Your task to perform on an android device: Is it going to rain today? Image 0: 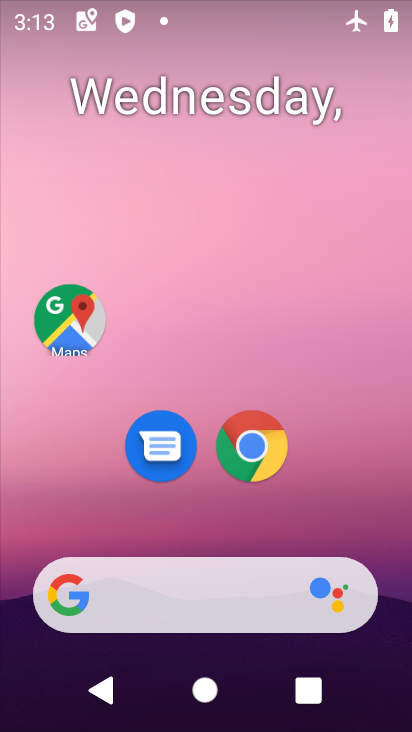
Step 0: drag from (198, 519) to (196, 127)
Your task to perform on an android device: Is it going to rain today? Image 1: 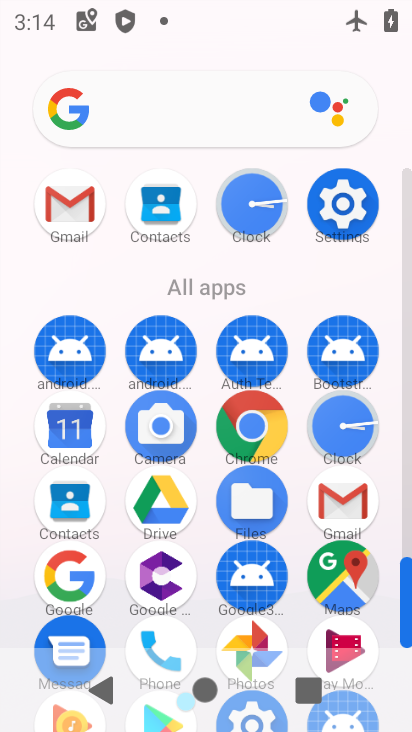
Step 1: drag from (203, 538) to (203, 243)
Your task to perform on an android device: Is it going to rain today? Image 2: 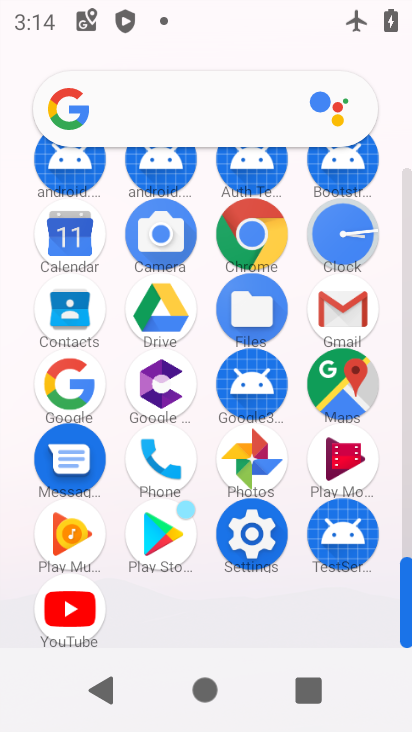
Step 2: click (75, 383)
Your task to perform on an android device: Is it going to rain today? Image 3: 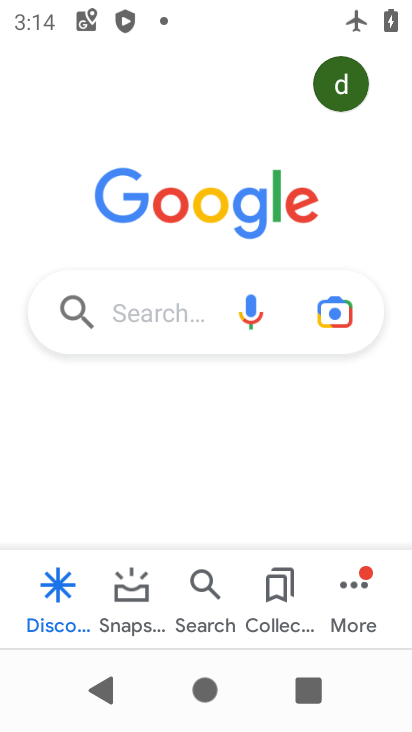
Step 3: click (147, 307)
Your task to perform on an android device: Is it going to rain today? Image 4: 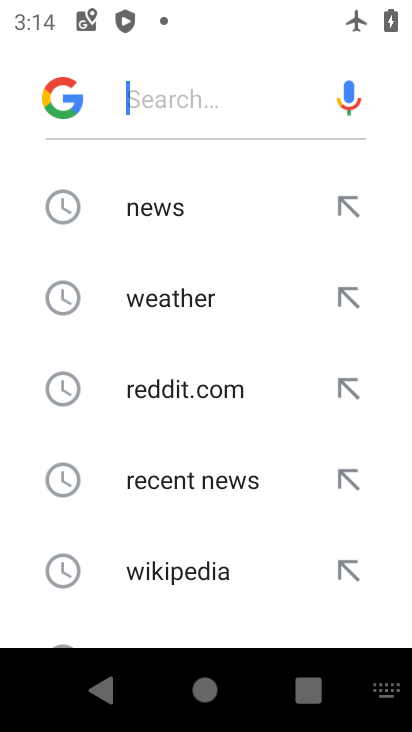
Step 4: type "is it going to rain today"
Your task to perform on an android device: Is it going to rain today? Image 5: 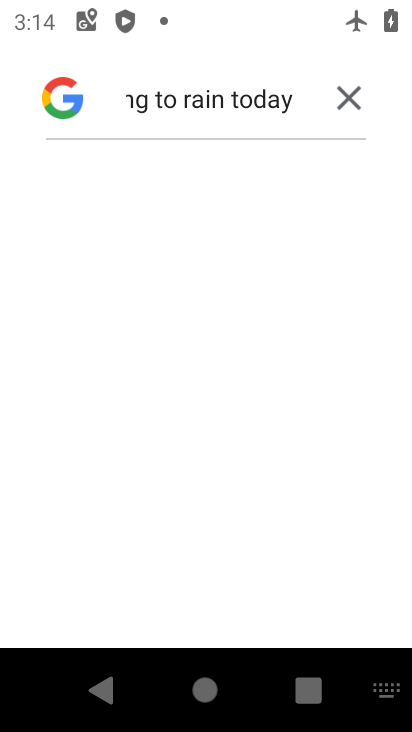
Step 5: task complete